Your task to perform on an android device: toggle sleep mode Image 0: 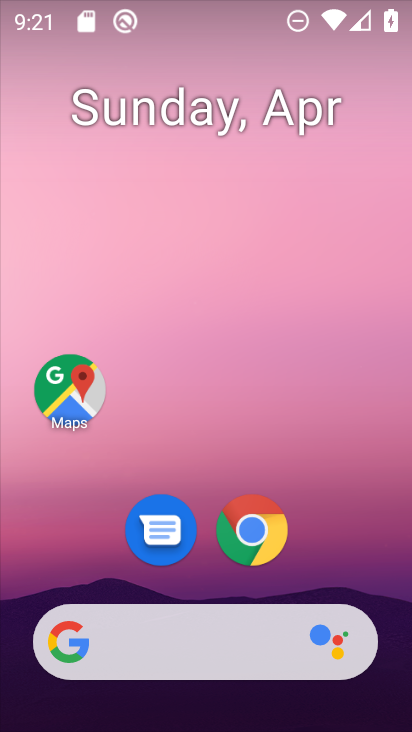
Step 0: drag from (363, 564) to (379, 7)
Your task to perform on an android device: toggle sleep mode Image 1: 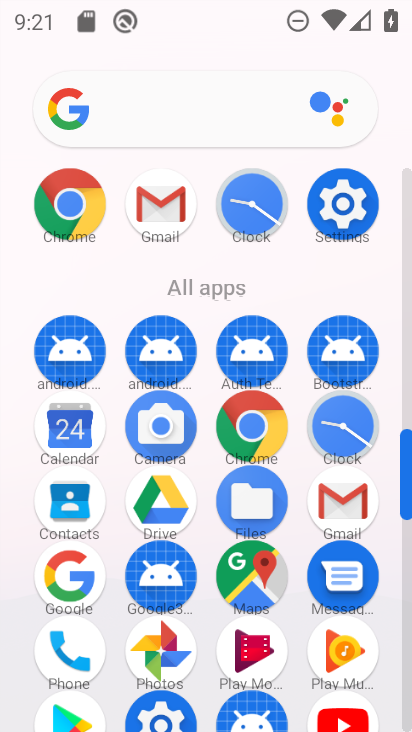
Step 1: click (346, 210)
Your task to perform on an android device: toggle sleep mode Image 2: 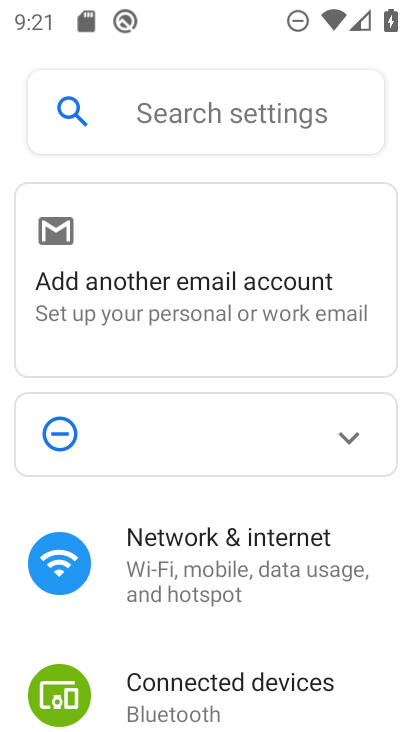
Step 2: drag from (347, 577) to (320, 32)
Your task to perform on an android device: toggle sleep mode Image 3: 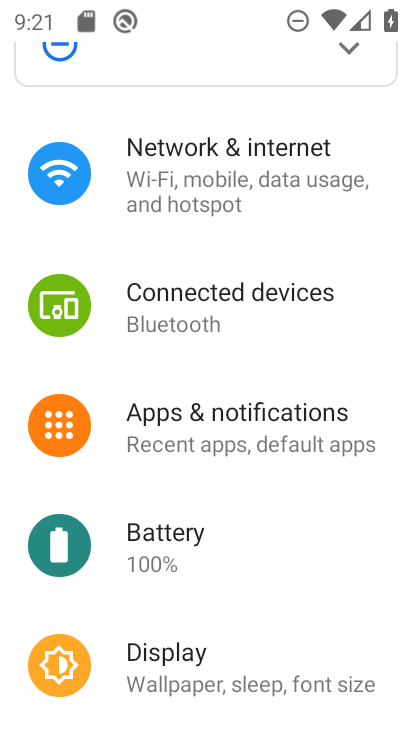
Step 3: drag from (315, 473) to (292, 79)
Your task to perform on an android device: toggle sleep mode Image 4: 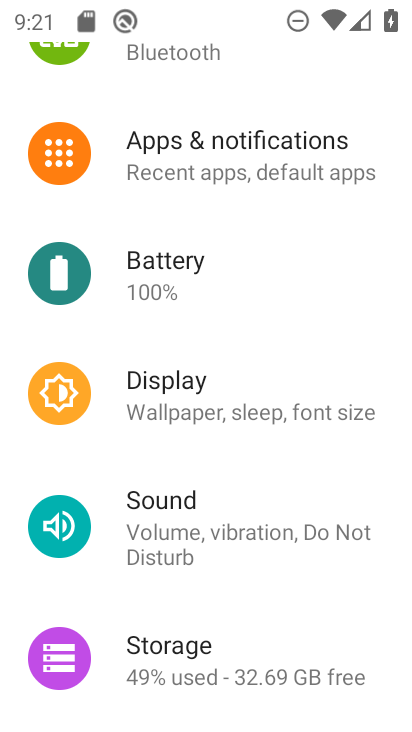
Step 4: click (151, 409)
Your task to perform on an android device: toggle sleep mode Image 5: 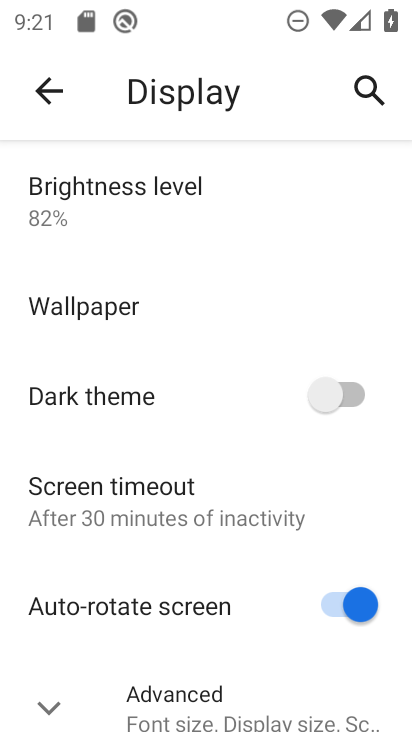
Step 5: drag from (167, 478) to (169, 115)
Your task to perform on an android device: toggle sleep mode Image 6: 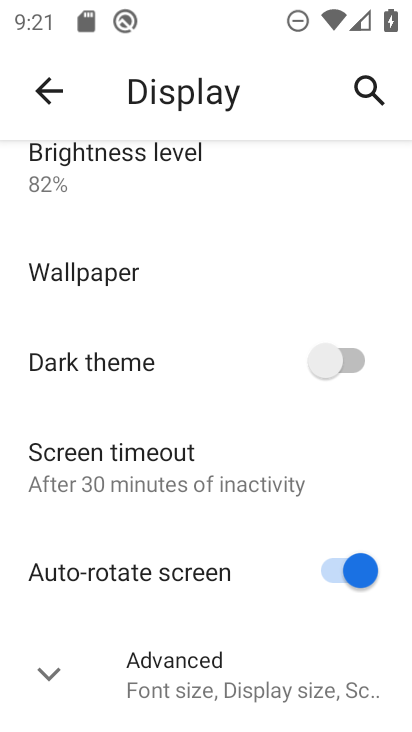
Step 6: click (50, 690)
Your task to perform on an android device: toggle sleep mode Image 7: 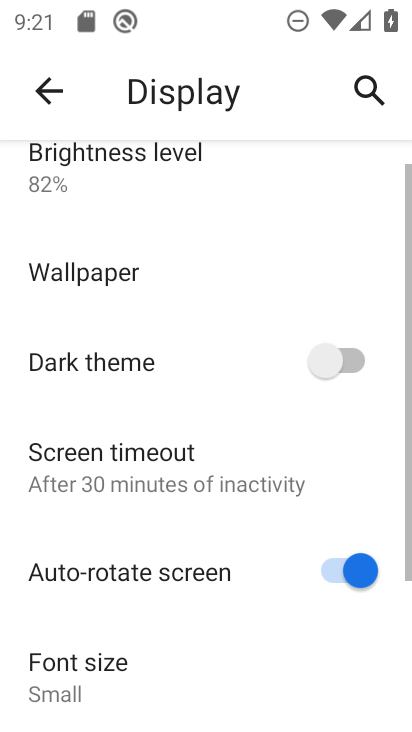
Step 7: task complete